Your task to perform on an android device: When is my next appointment? Image 0: 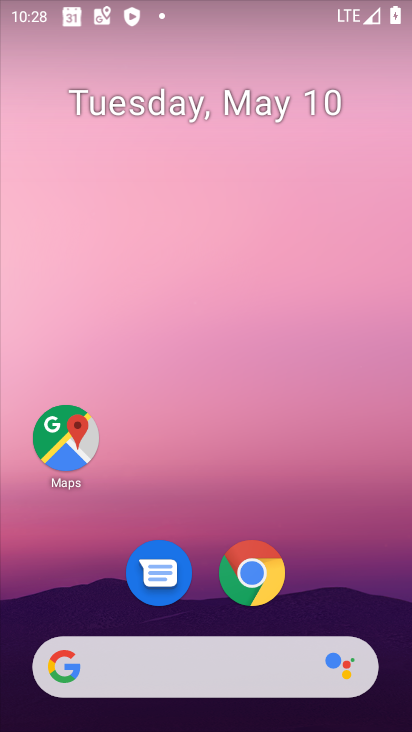
Step 0: drag from (335, 510) to (188, 38)
Your task to perform on an android device: When is my next appointment? Image 1: 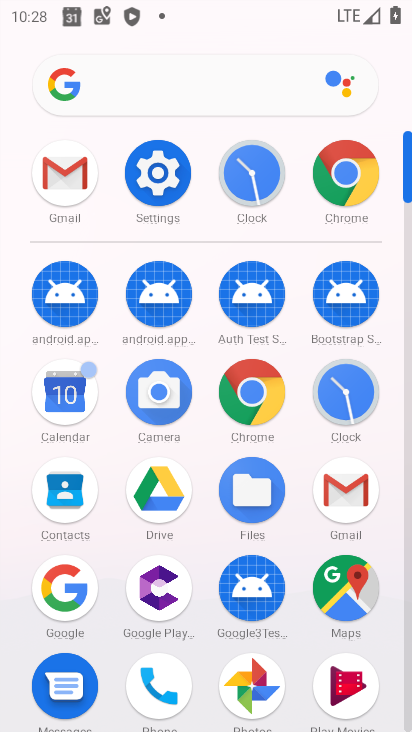
Step 1: click (64, 412)
Your task to perform on an android device: When is my next appointment? Image 2: 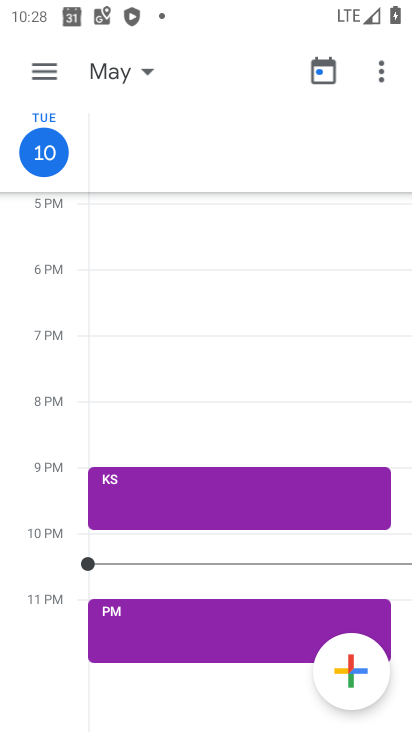
Step 2: drag from (147, 327) to (90, 8)
Your task to perform on an android device: When is my next appointment? Image 3: 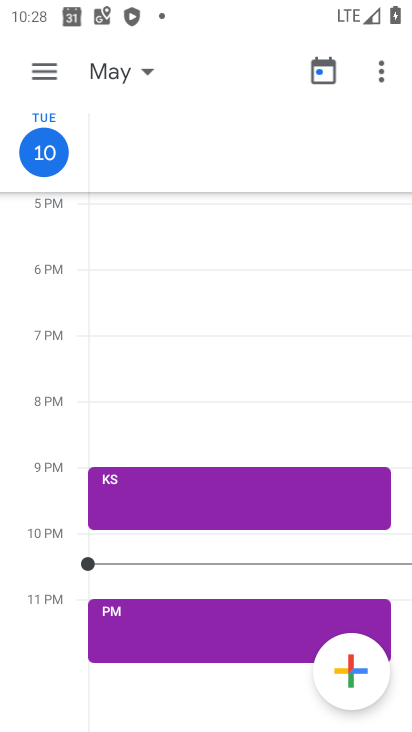
Step 3: drag from (201, 528) to (160, 257)
Your task to perform on an android device: When is my next appointment? Image 4: 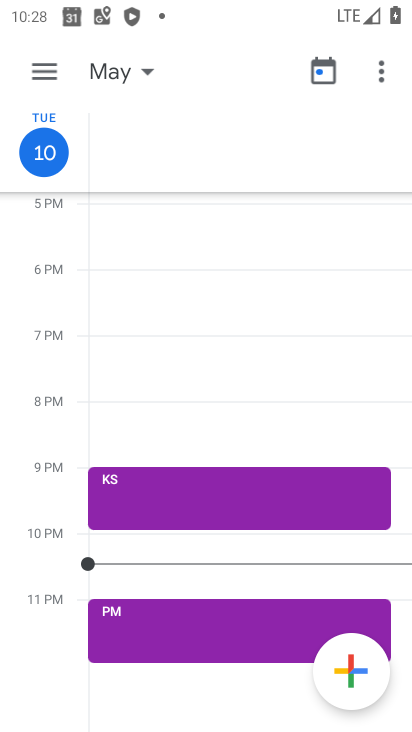
Step 4: click (255, 413)
Your task to perform on an android device: When is my next appointment? Image 5: 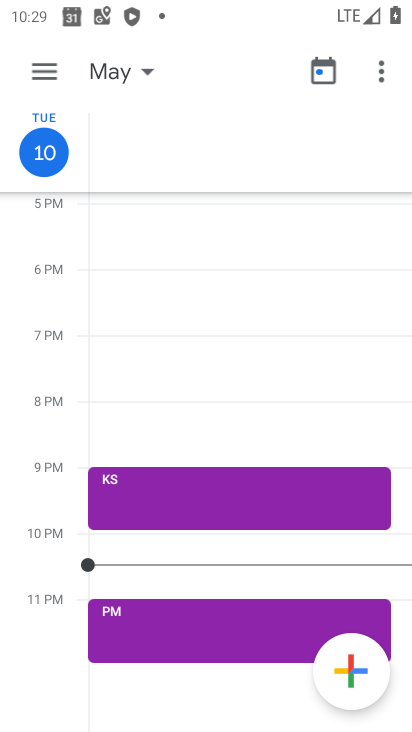
Step 5: task complete